Your task to perform on an android device: visit the assistant section in the google photos Image 0: 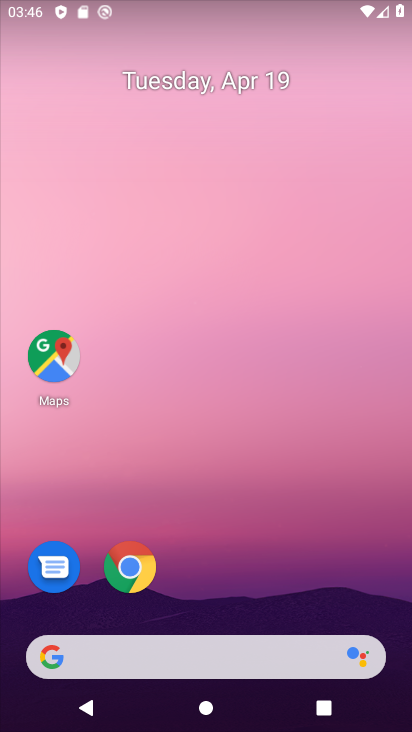
Step 0: drag from (249, 624) to (360, 63)
Your task to perform on an android device: visit the assistant section in the google photos Image 1: 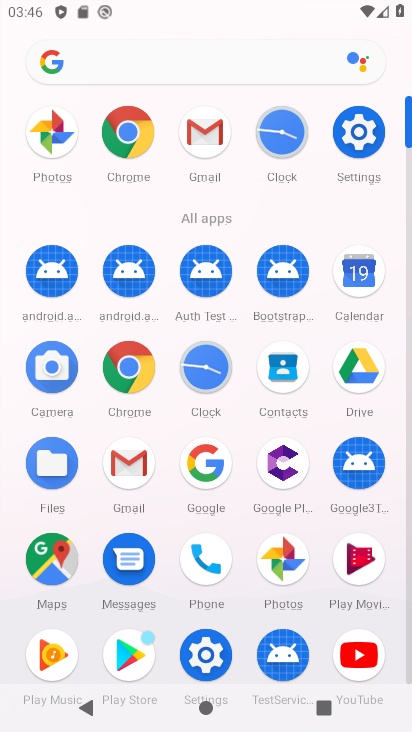
Step 1: click (284, 564)
Your task to perform on an android device: visit the assistant section in the google photos Image 2: 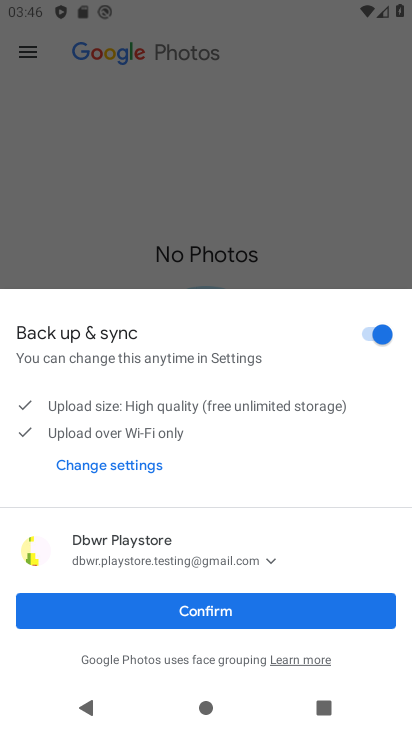
Step 2: click (216, 609)
Your task to perform on an android device: visit the assistant section in the google photos Image 3: 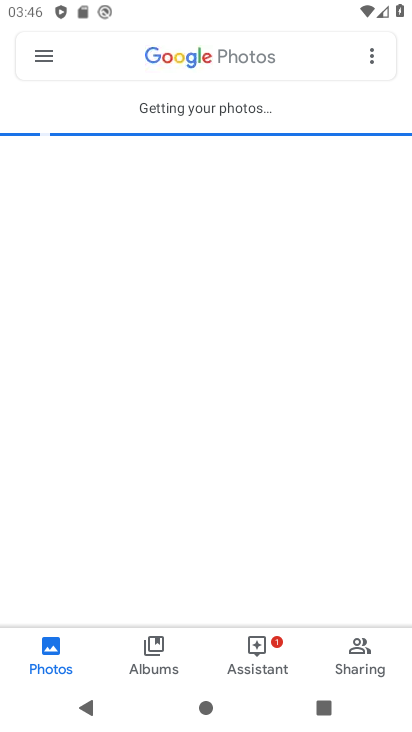
Step 3: click (255, 653)
Your task to perform on an android device: visit the assistant section in the google photos Image 4: 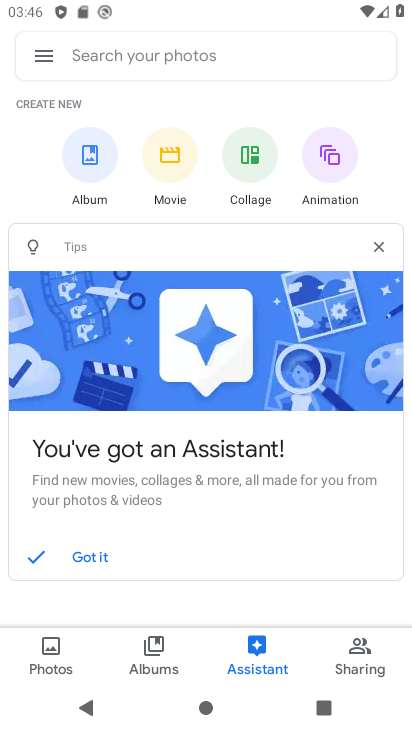
Step 4: task complete